Your task to perform on an android device: Go to network settings Image 0: 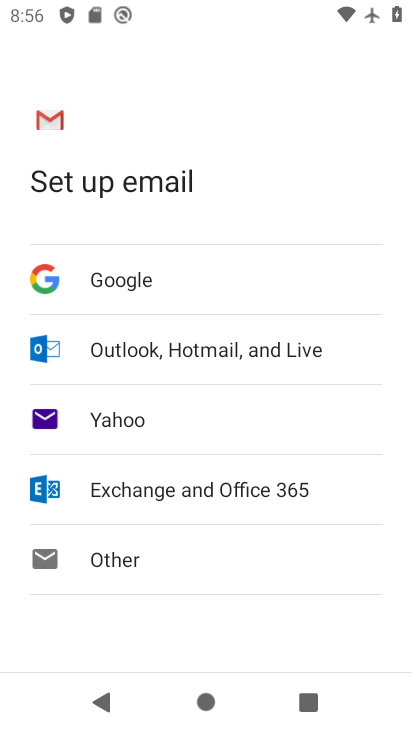
Step 0: press home button
Your task to perform on an android device: Go to network settings Image 1: 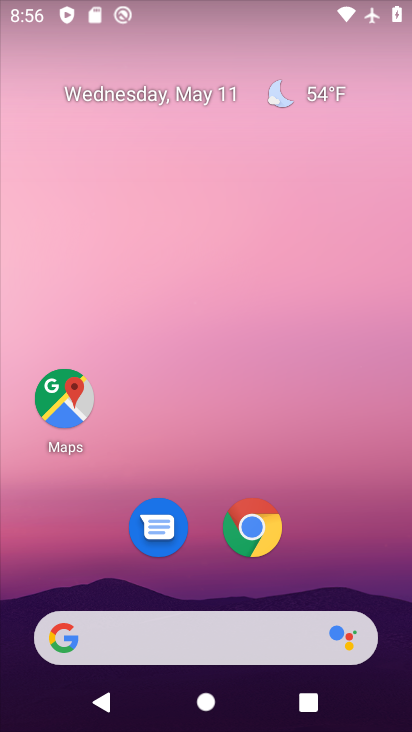
Step 1: drag from (294, 533) to (301, 266)
Your task to perform on an android device: Go to network settings Image 2: 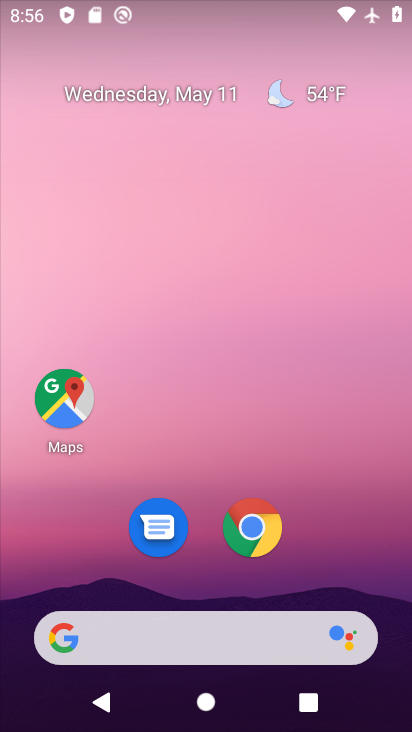
Step 2: drag from (329, 567) to (292, 79)
Your task to perform on an android device: Go to network settings Image 3: 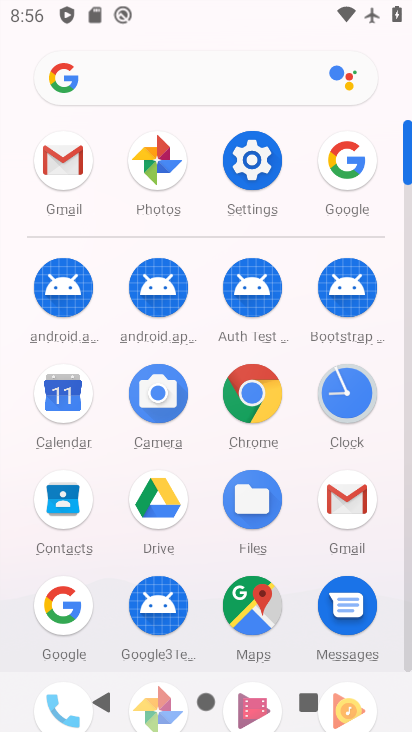
Step 3: click (260, 181)
Your task to perform on an android device: Go to network settings Image 4: 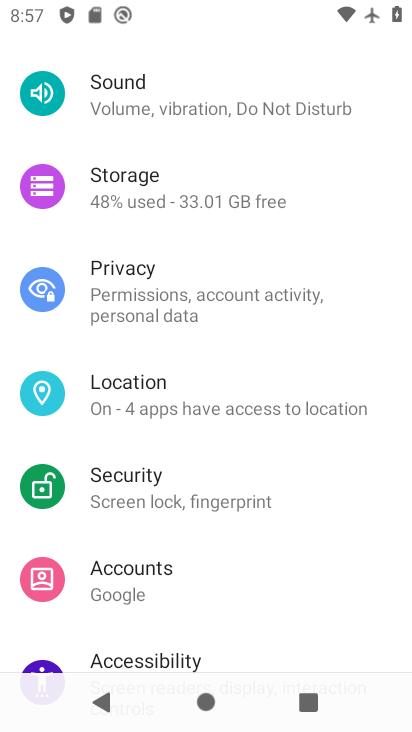
Step 4: drag from (239, 252) to (228, 626)
Your task to perform on an android device: Go to network settings Image 5: 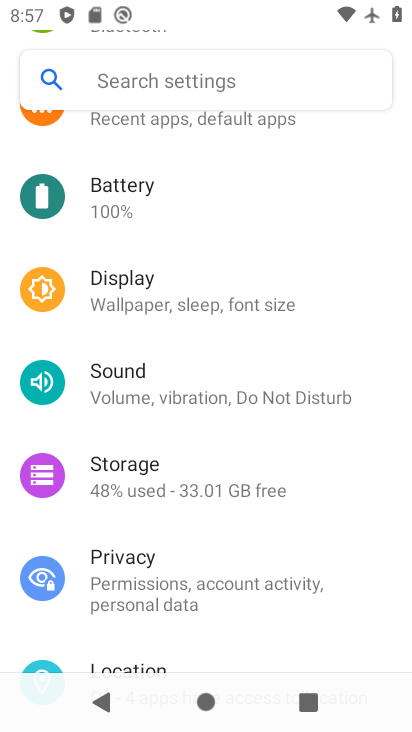
Step 5: drag from (229, 254) to (231, 535)
Your task to perform on an android device: Go to network settings Image 6: 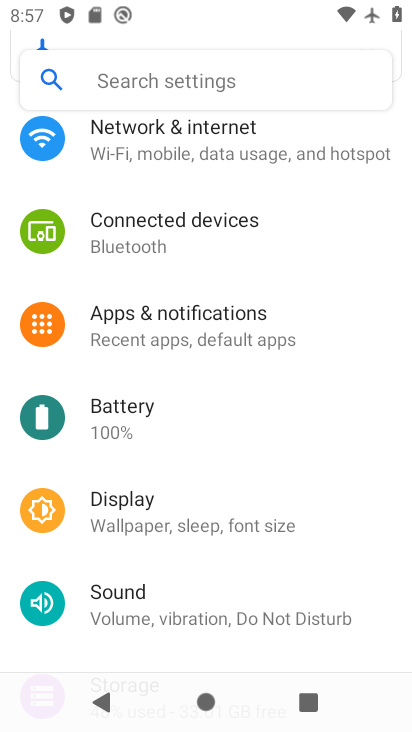
Step 6: click (187, 145)
Your task to perform on an android device: Go to network settings Image 7: 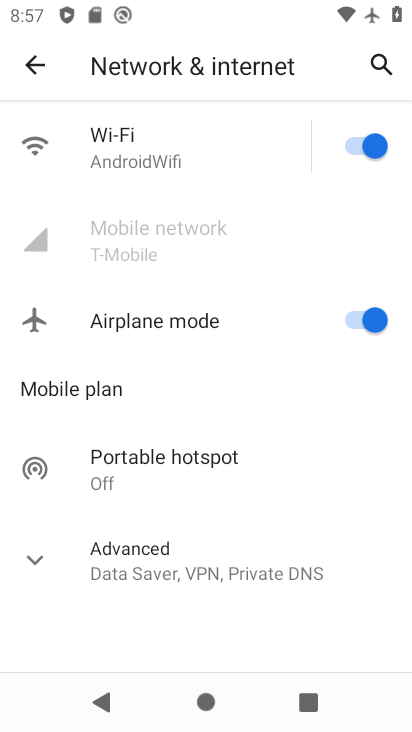
Step 7: task complete